Your task to perform on an android device: toggle pop-ups in chrome Image 0: 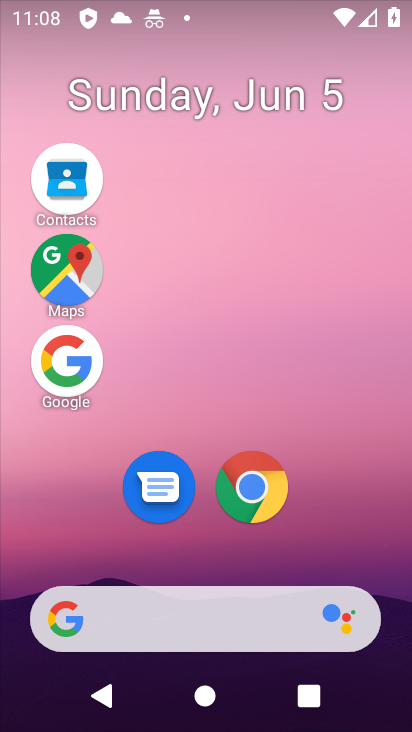
Step 0: click (267, 504)
Your task to perform on an android device: toggle pop-ups in chrome Image 1: 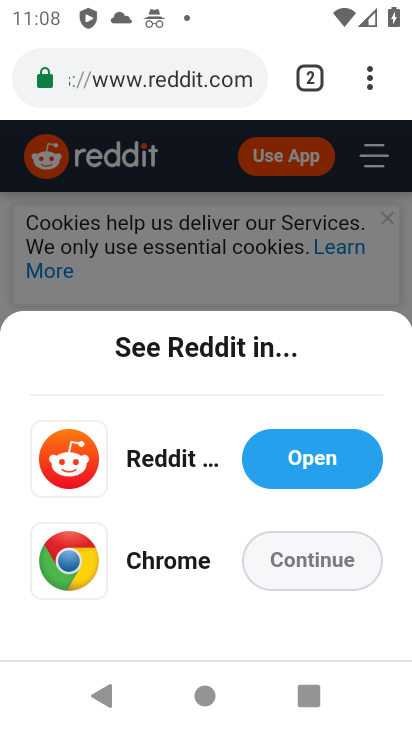
Step 1: click (379, 79)
Your task to perform on an android device: toggle pop-ups in chrome Image 2: 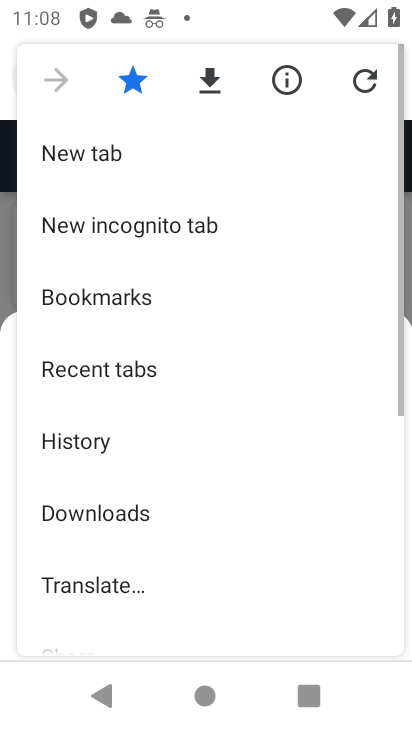
Step 2: drag from (174, 499) to (206, 236)
Your task to perform on an android device: toggle pop-ups in chrome Image 3: 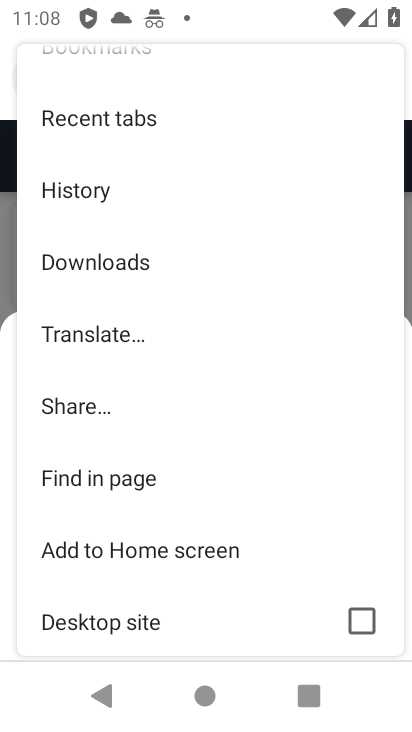
Step 3: drag from (160, 507) to (194, 257)
Your task to perform on an android device: toggle pop-ups in chrome Image 4: 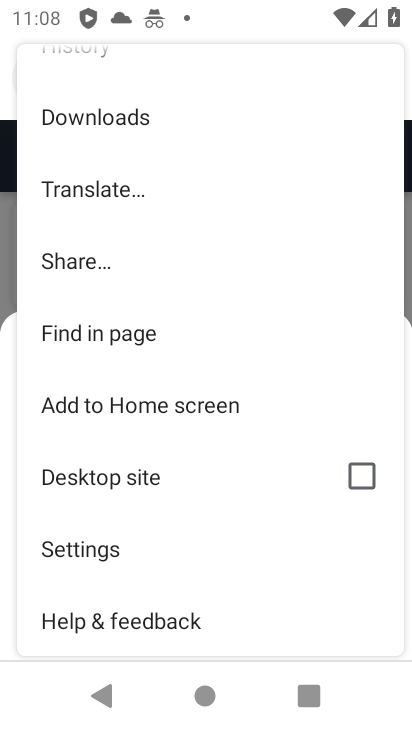
Step 4: click (162, 548)
Your task to perform on an android device: toggle pop-ups in chrome Image 5: 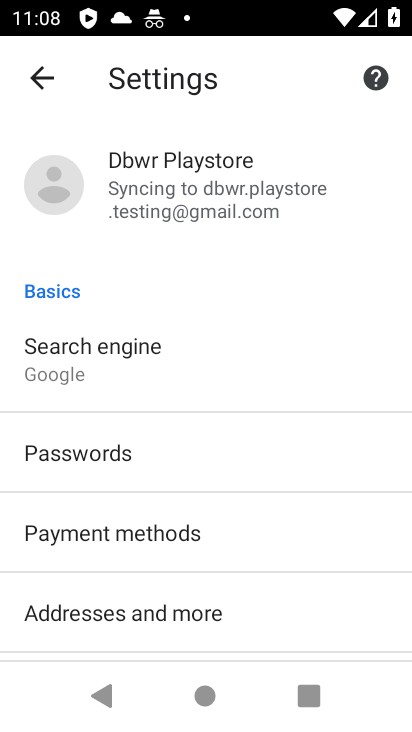
Step 5: drag from (169, 551) to (191, 168)
Your task to perform on an android device: toggle pop-ups in chrome Image 6: 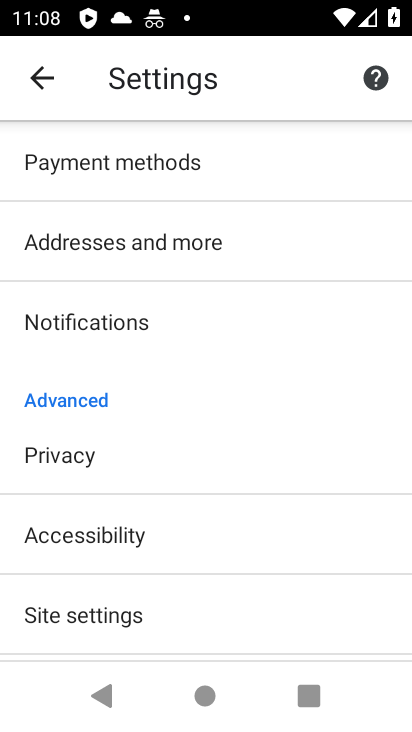
Step 6: drag from (144, 579) to (160, 346)
Your task to perform on an android device: toggle pop-ups in chrome Image 7: 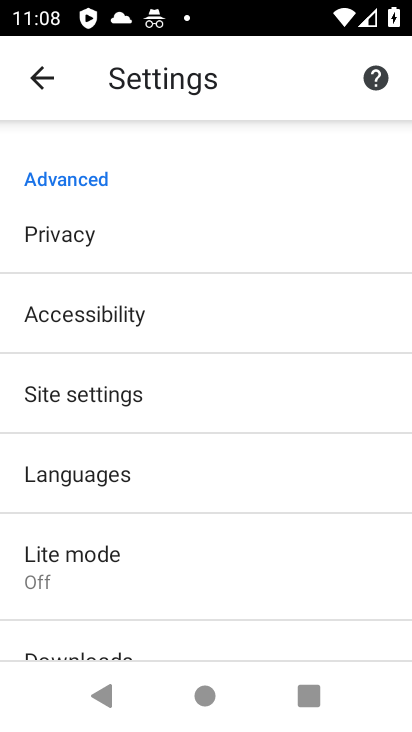
Step 7: drag from (142, 570) to (158, 383)
Your task to perform on an android device: toggle pop-ups in chrome Image 8: 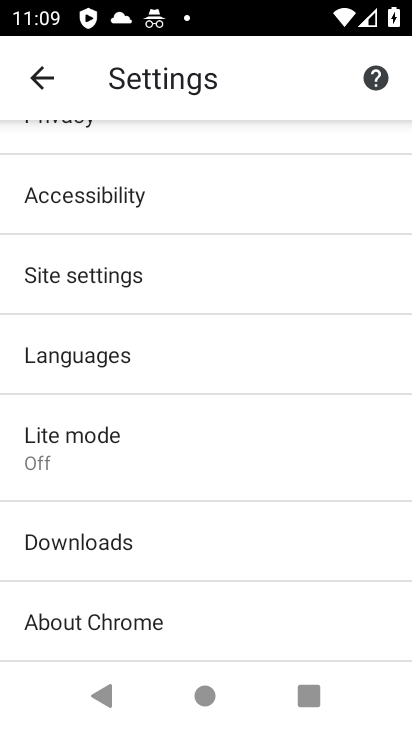
Step 8: click (147, 273)
Your task to perform on an android device: toggle pop-ups in chrome Image 9: 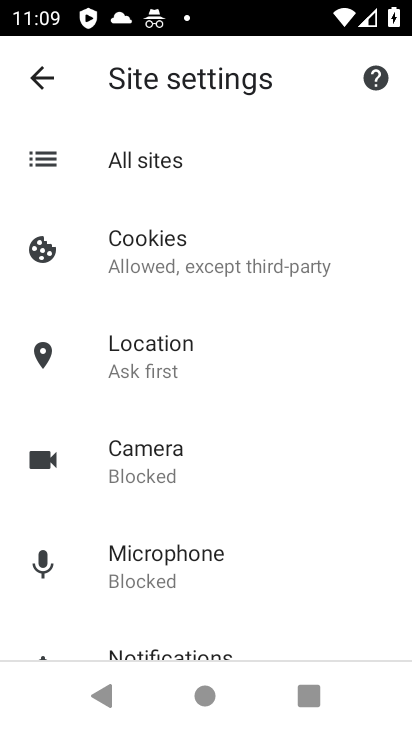
Step 9: drag from (205, 506) to (214, 127)
Your task to perform on an android device: toggle pop-ups in chrome Image 10: 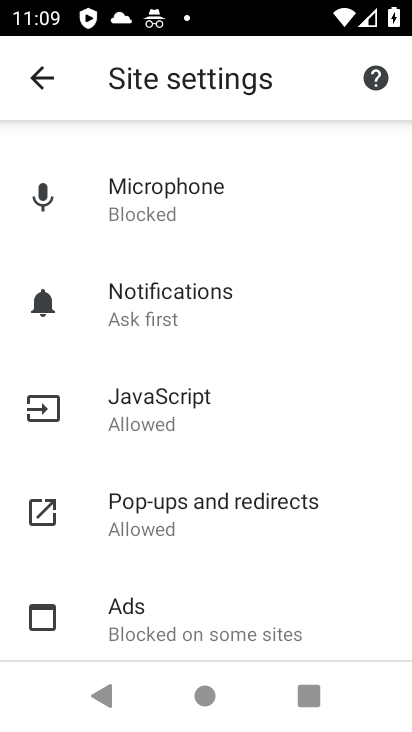
Step 10: click (225, 507)
Your task to perform on an android device: toggle pop-ups in chrome Image 11: 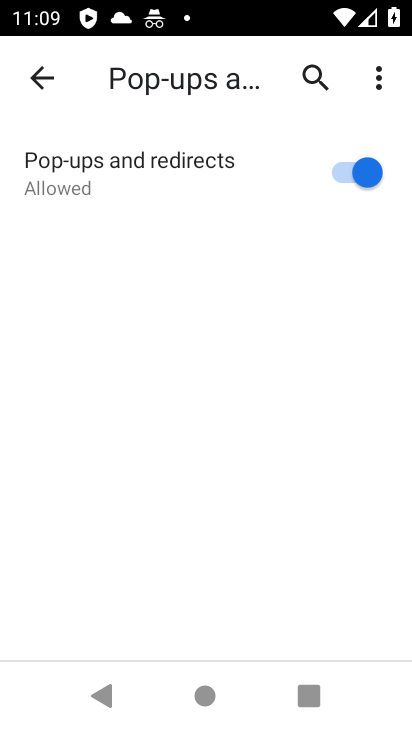
Step 11: click (349, 180)
Your task to perform on an android device: toggle pop-ups in chrome Image 12: 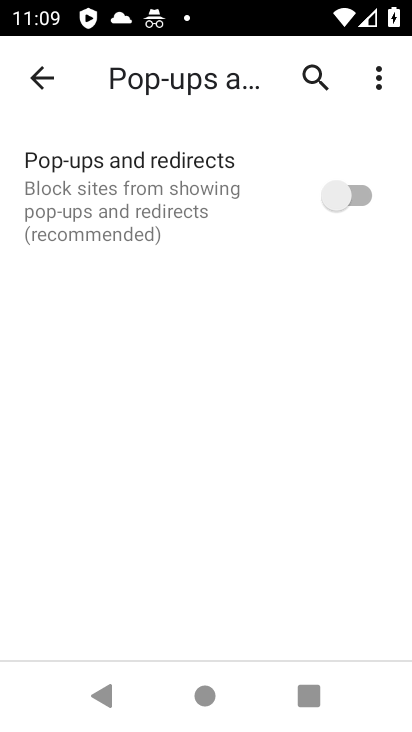
Step 12: task complete